Your task to perform on an android device: Search for sushi restaurants on Maps Image 0: 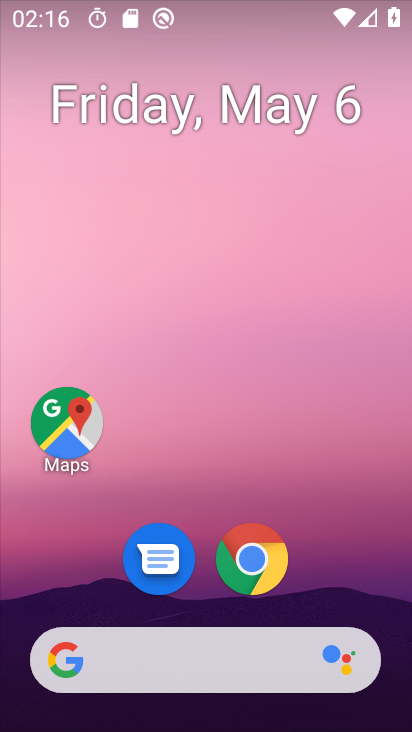
Step 0: drag from (335, 623) to (320, 31)
Your task to perform on an android device: Search for sushi restaurants on Maps Image 1: 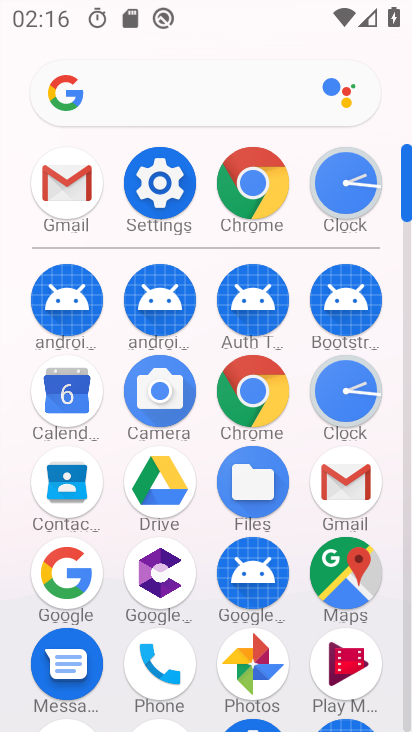
Step 1: click (329, 579)
Your task to perform on an android device: Search for sushi restaurants on Maps Image 2: 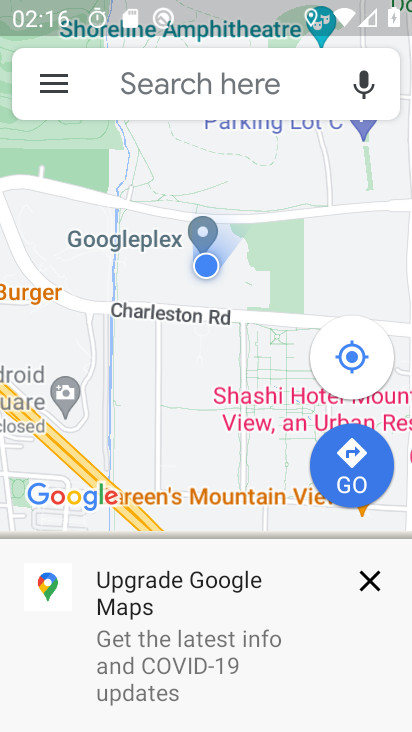
Step 2: click (256, 73)
Your task to perform on an android device: Search for sushi restaurants on Maps Image 3: 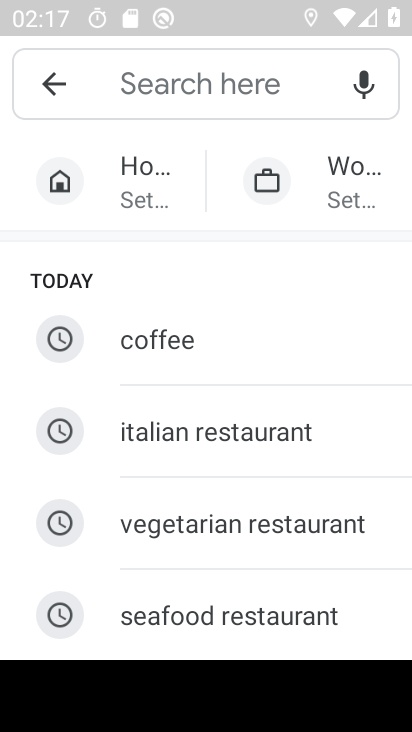
Step 3: type "sushi restaurant"
Your task to perform on an android device: Search for sushi restaurants on Maps Image 4: 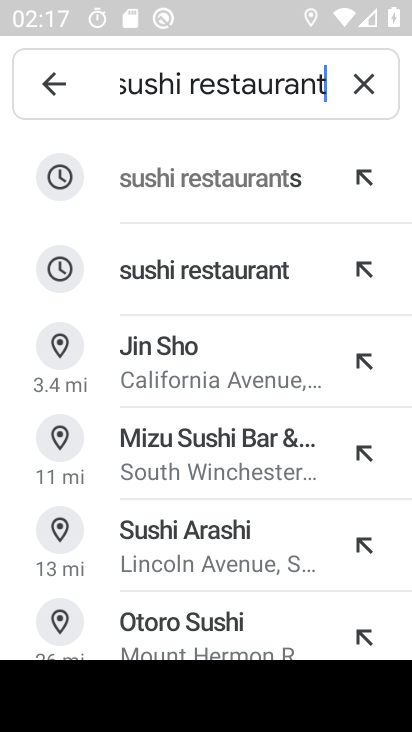
Step 4: click (277, 274)
Your task to perform on an android device: Search for sushi restaurants on Maps Image 5: 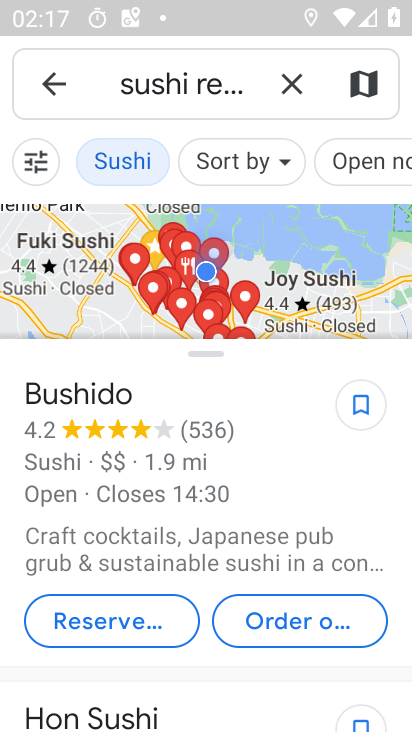
Step 5: task complete